Your task to perform on an android device: turn vacation reply on in the gmail app Image 0: 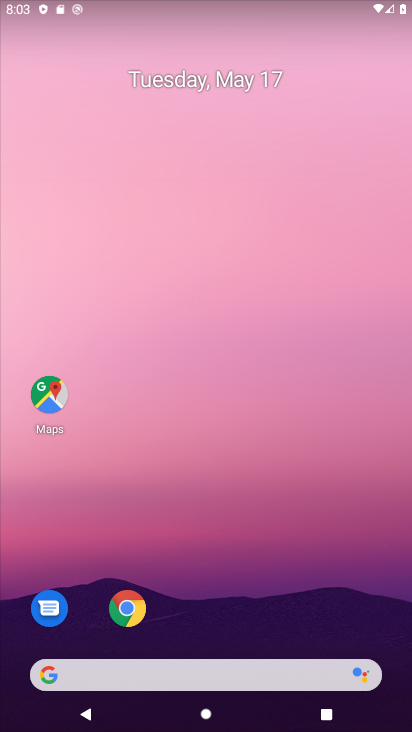
Step 0: drag from (310, 596) to (303, 31)
Your task to perform on an android device: turn vacation reply on in the gmail app Image 1: 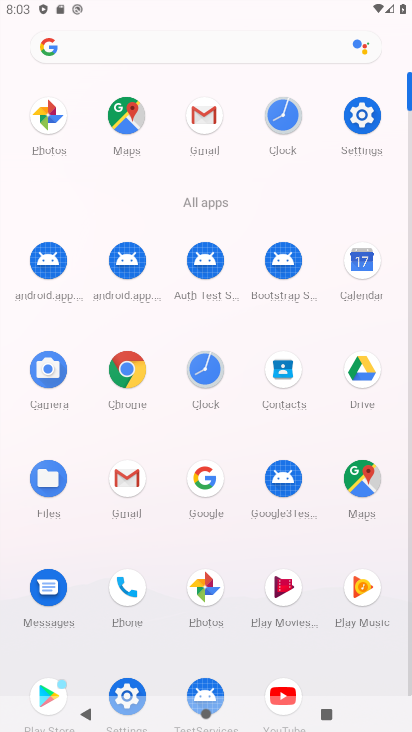
Step 1: click (208, 125)
Your task to perform on an android device: turn vacation reply on in the gmail app Image 2: 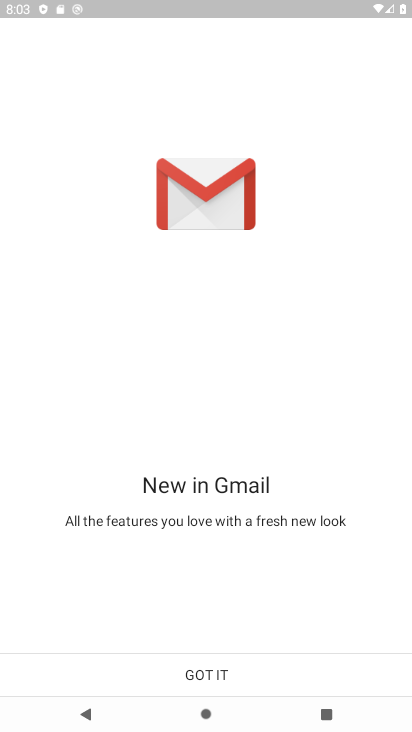
Step 2: click (215, 675)
Your task to perform on an android device: turn vacation reply on in the gmail app Image 3: 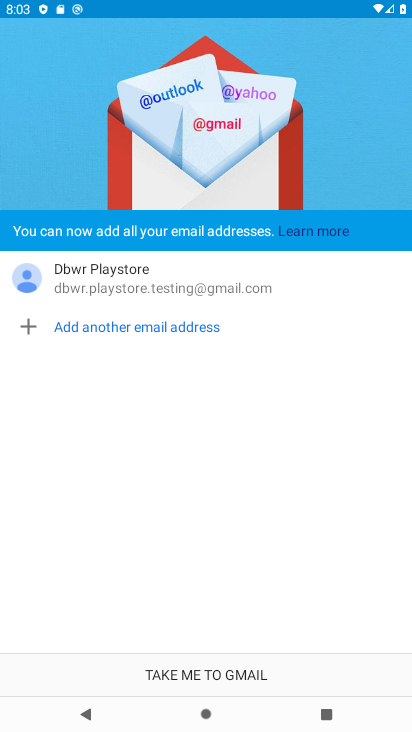
Step 3: click (215, 675)
Your task to perform on an android device: turn vacation reply on in the gmail app Image 4: 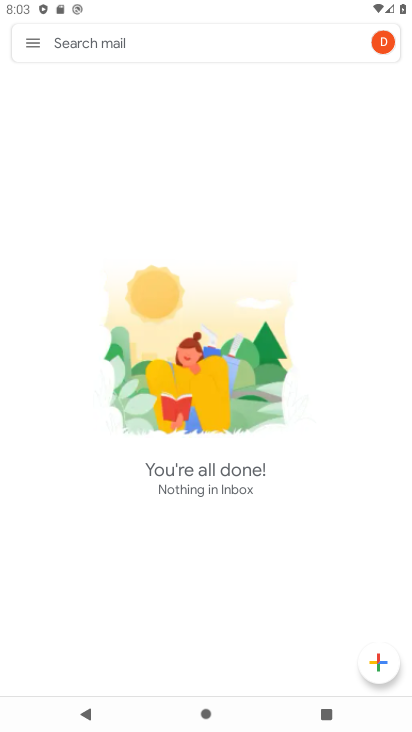
Step 4: click (28, 43)
Your task to perform on an android device: turn vacation reply on in the gmail app Image 5: 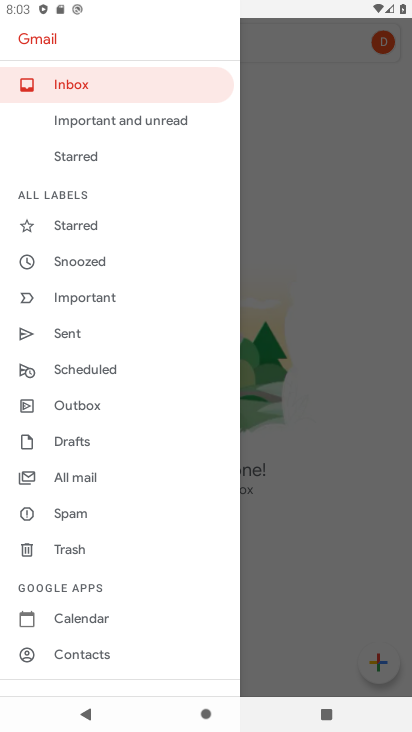
Step 5: drag from (176, 560) to (189, 463)
Your task to perform on an android device: turn vacation reply on in the gmail app Image 6: 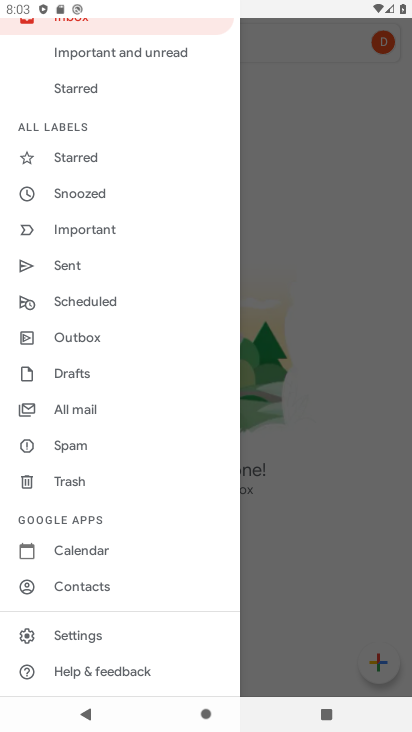
Step 6: click (93, 637)
Your task to perform on an android device: turn vacation reply on in the gmail app Image 7: 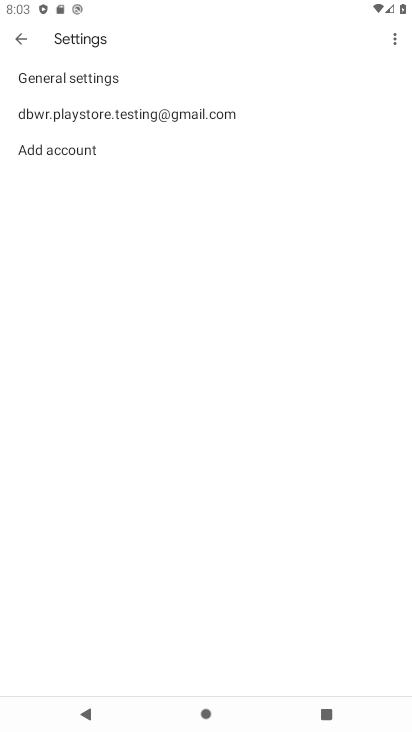
Step 7: click (213, 118)
Your task to perform on an android device: turn vacation reply on in the gmail app Image 8: 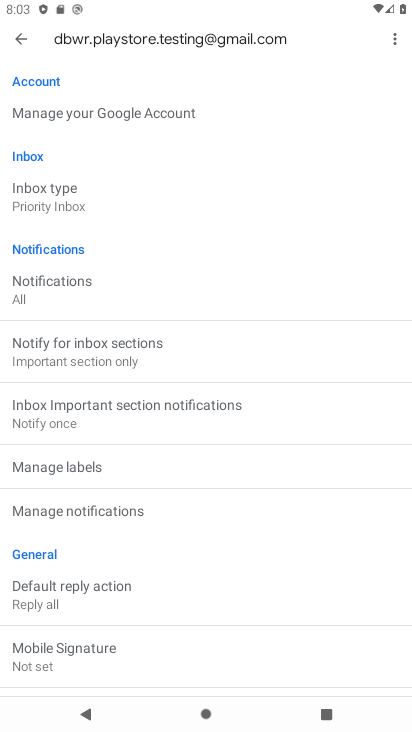
Step 8: drag from (301, 555) to (316, 433)
Your task to perform on an android device: turn vacation reply on in the gmail app Image 9: 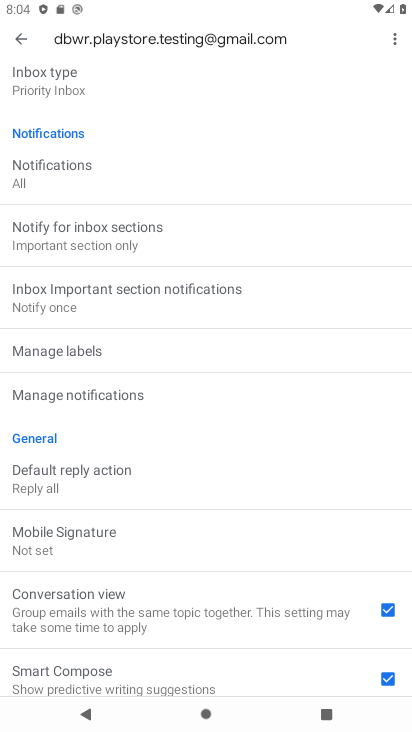
Step 9: drag from (325, 544) to (324, 479)
Your task to perform on an android device: turn vacation reply on in the gmail app Image 10: 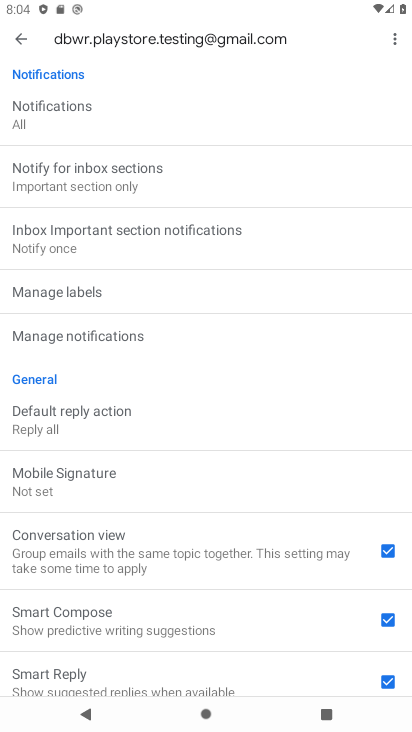
Step 10: drag from (303, 609) to (311, 466)
Your task to perform on an android device: turn vacation reply on in the gmail app Image 11: 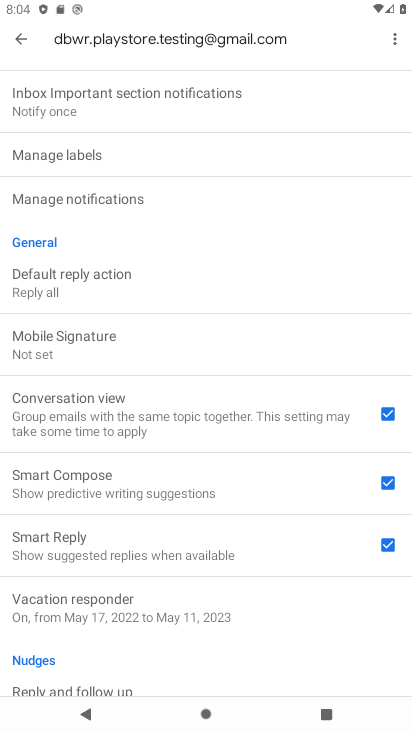
Step 11: drag from (298, 600) to (294, 460)
Your task to perform on an android device: turn vacation reply on in the gmail app Image 12: 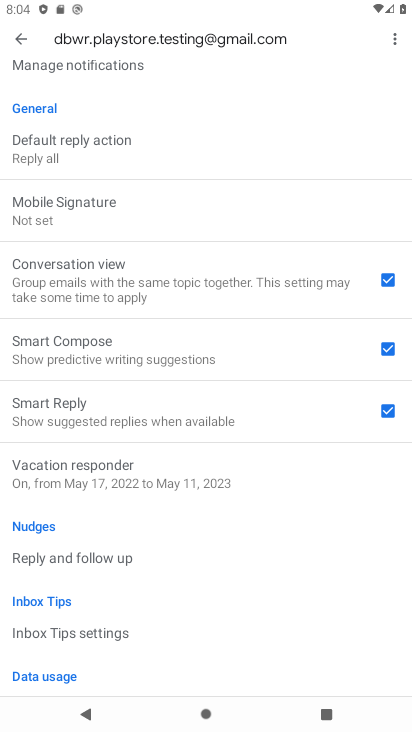
Step 12: drag from (289, 593) to (289, 474)
Your task to perform on an android device: turn vacation reply on in the gmail app Image 13: 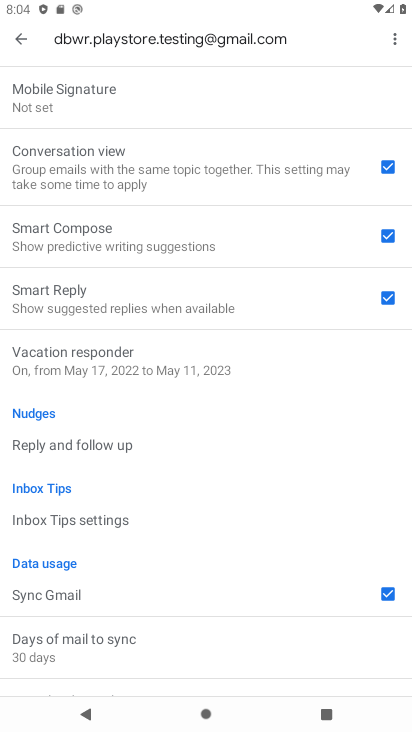
Step 13: drag from (270, 642) to (280, 486)
Your task to perform on an android device: turn vacation reply on in the gmail app Image 14: 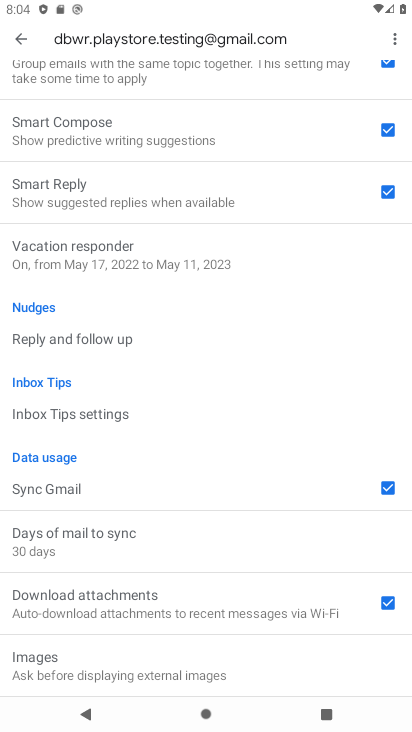
Step 14: drag from (276, 651) to (276, 522)
Your task to perform on an android device: turn vacation reply on in the gmail app Image 15: 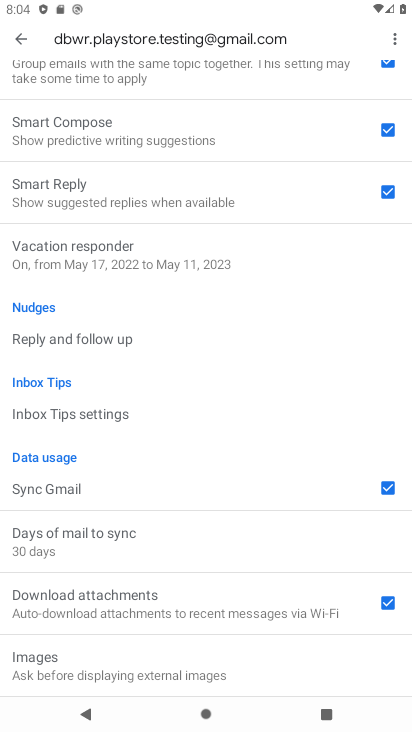
Step 15: drag from (310, 299) to (298, 389)
Your task to perform on an android device: turn vacation reply on in the gmail app Image 16: 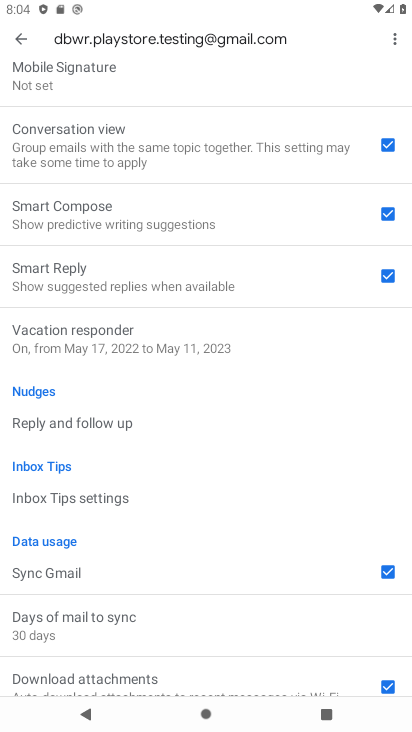
Step 16: click (200, 341)
Your task to perform on an android device: turn vacation reply on in the gmail app Image 17: 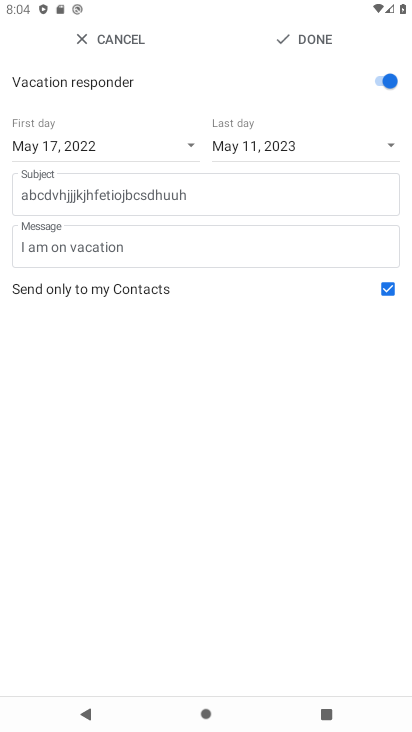
Step 17: task complete